Your task to perform on an android device: Open Amazon Image 0: 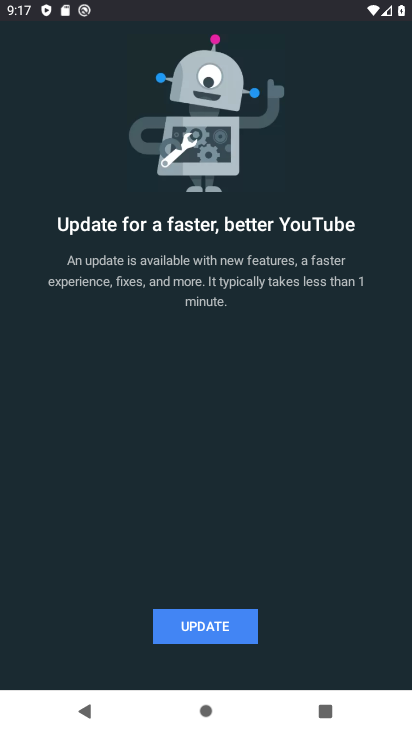
Step 0: press home button
Your task to perform on an android device: Open Amazon Image 1: 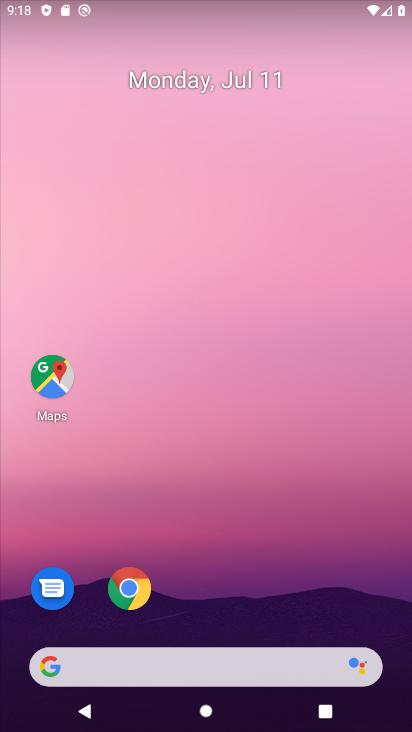
Step 1: click (140, 581)
Your task to perform on an android device: Open Amazon Image 2: 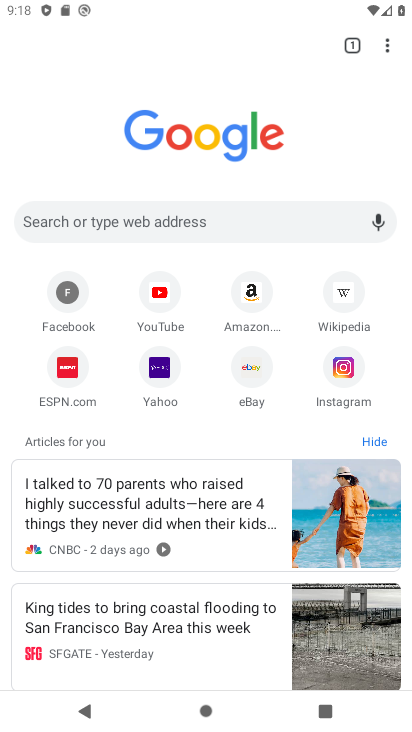
Step 2: click (140, 581)
Your task to perform on an android device: Open Amazon Image 3: 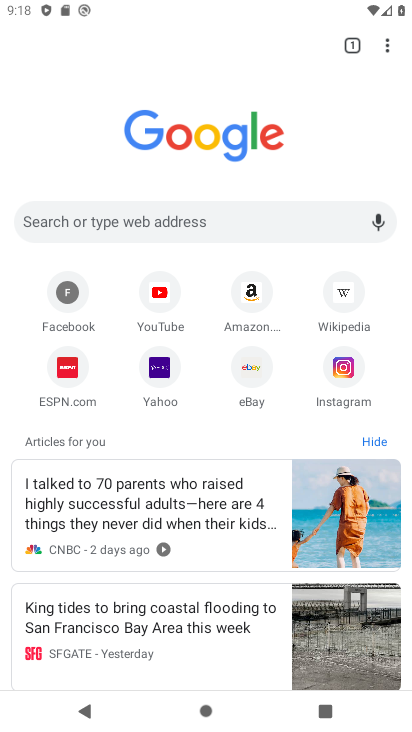
Step 3: click (261, 280)
Your task to perform on an android device: Open Amazon Image 4: 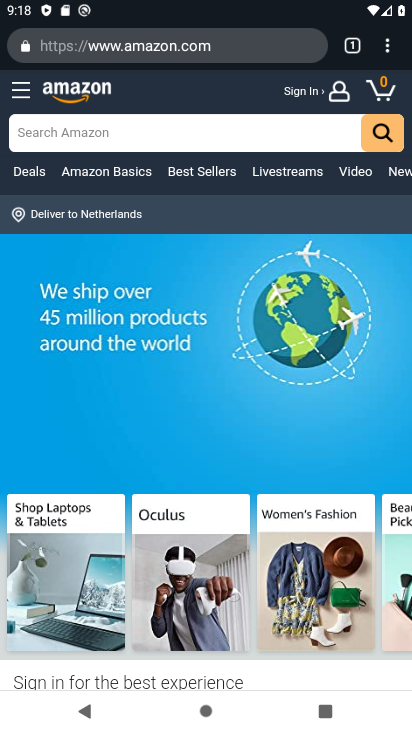
Step 4: task complete